Your task to perform on an android device: Open the calendar and show me this week's events? Image 0: 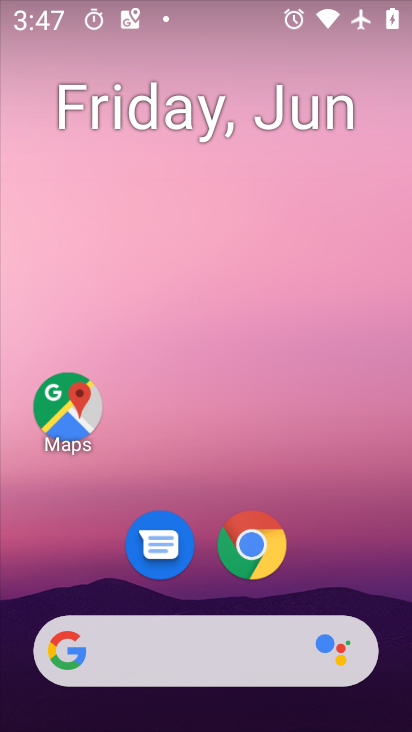
Step 0: drag from (328, 569) to (334, 19)
Your task to perform on an android device: Open the calendar and show me this week's events? Image 1: 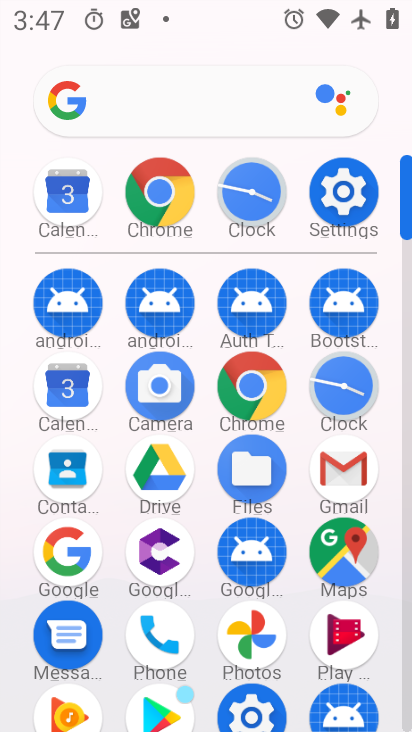
Step 1: click (71, 379)
Your task to perform on an android device: Open the calendar and show me this week's events? Image 2: 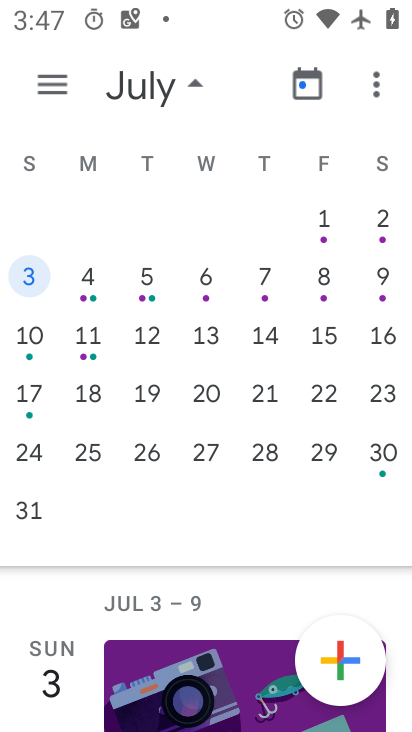
Step 2: drag from (80, 327) to (402, 360)
Your task to perform on an android device: Open the calendar and show me this week's events? Image 3: 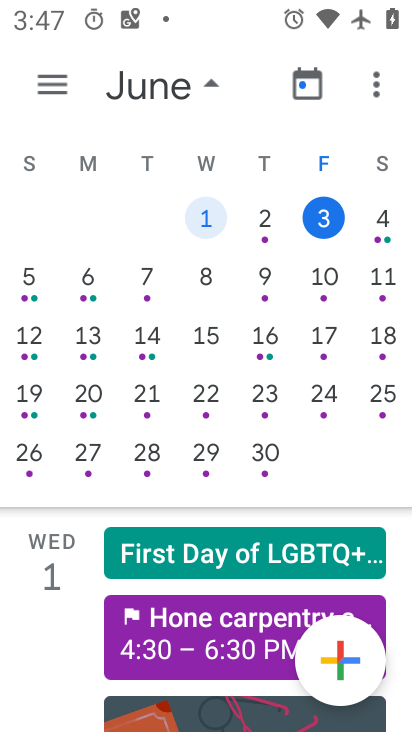
Step 3: click (337, 215)
Your task to perform on an android device: Open the calendar and show me this week's events? Image 4: 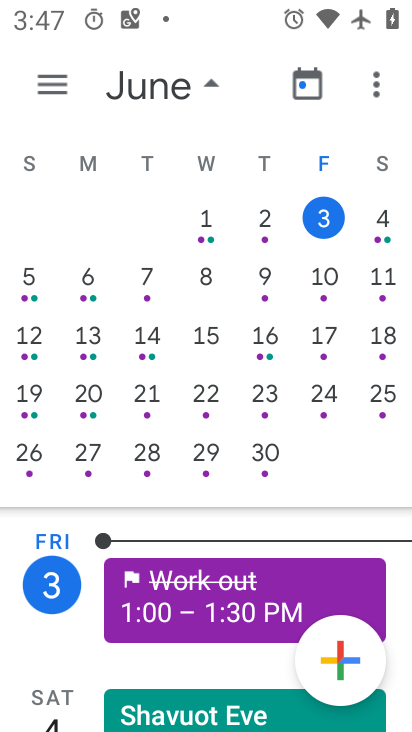
Step 4: task complete